Your task to perform on an android device: Open display settings Image 0: 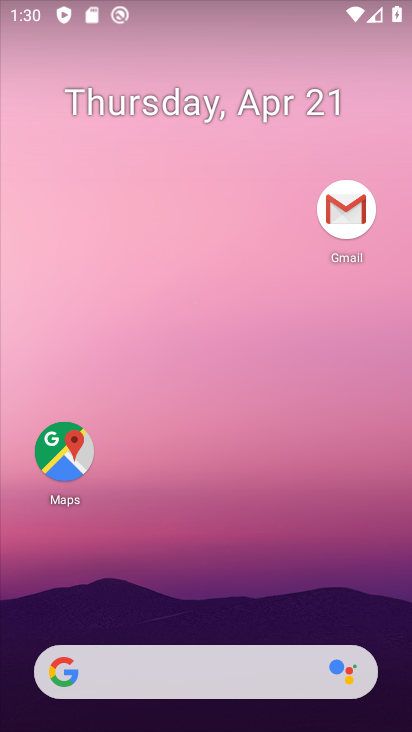
Step 0: click (390, 262)
Your task to perform on an android device: Open display settings Image 1: 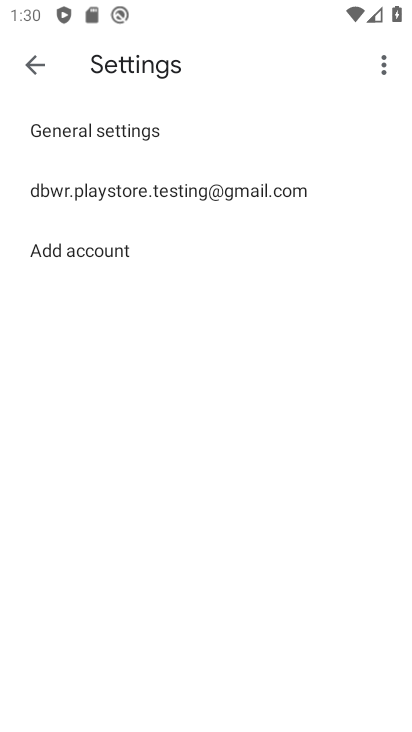
Step 1: press home button
Your task to perform on an android device: Open display settings Image 2: 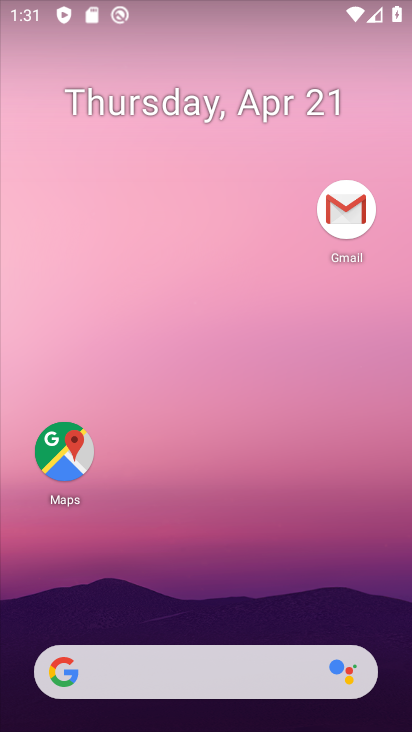
Step 2: drag from (200, 599) to (199, 112)
Your task to perform on an android device: Open display settings Image 3: 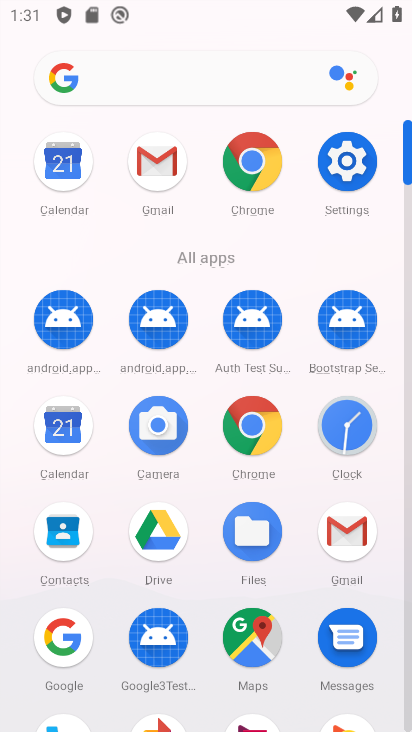
Step 3: click (340, 168)
Your task to perform on an android device: Open display settings Image 4: 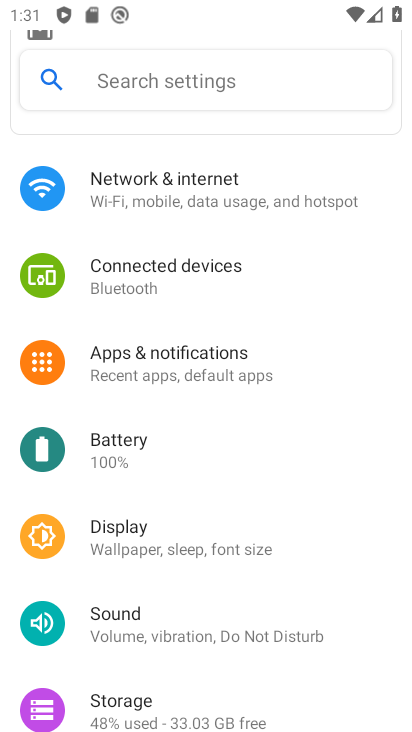
Step 4: click (151, 535)
Your task to perform on an android device: Open display settings Image 5: 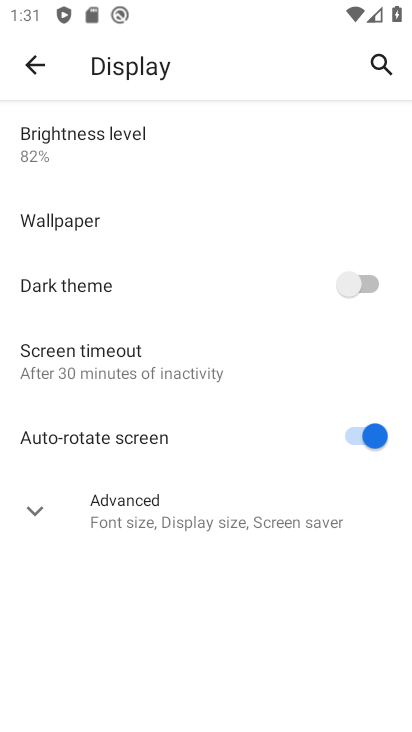
Step 5: task complete